Your task to perform on an android device: open a bookmark in the chrome app Image 0: 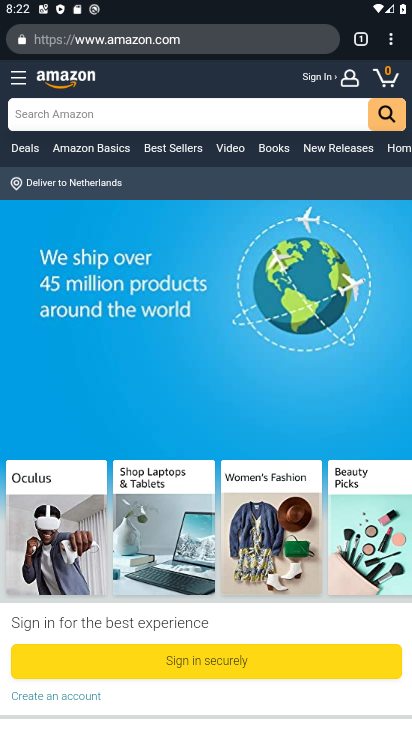
Step 0: click (389, 41)
Your task to perform on an android device: open a bookmark in the chrome app Image 1: 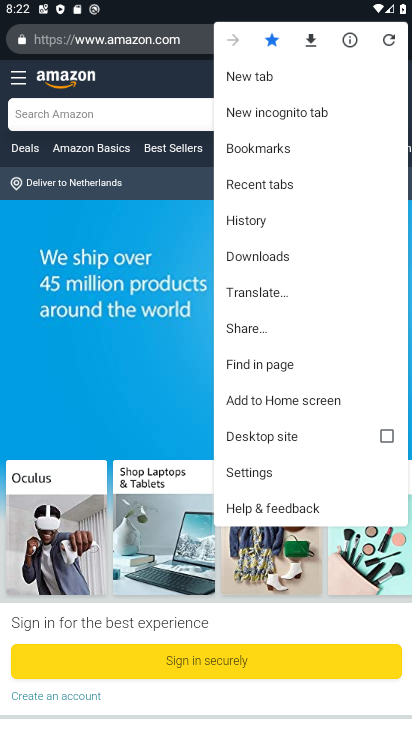
Step 1: click (253, 146)
Your task to perform on an android device: open a bookmark in the chrome app Image 2: 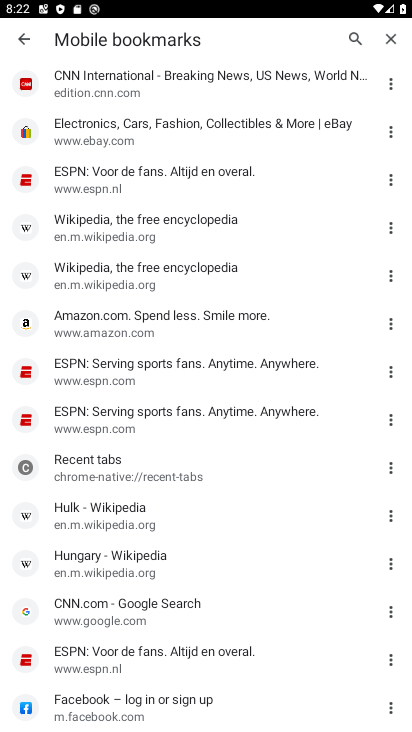
Step 2: task complete